Your task to perform on an android device: empty trash in google photos Image 0: 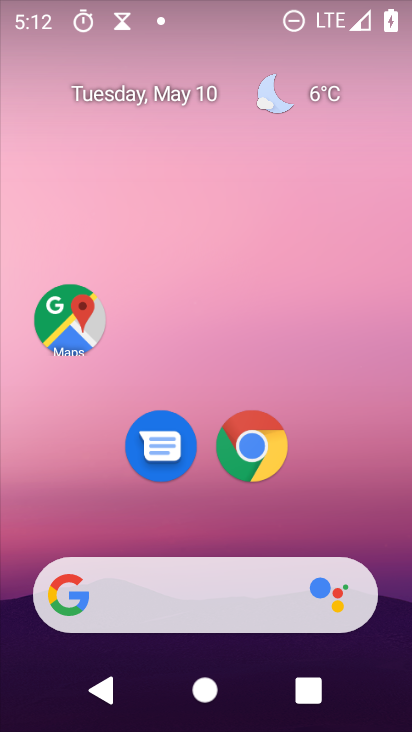
Step 0: drag from (314, 449) to (242, 2)
Your task to perform on an android device: empty trash in google photos Image 1: 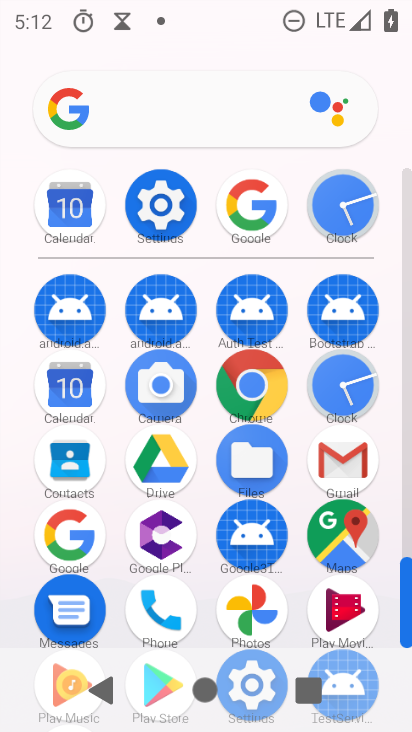
Step 1: click (249, 606)
Your task to perform on an android device: empty trash in google photos Image 2: 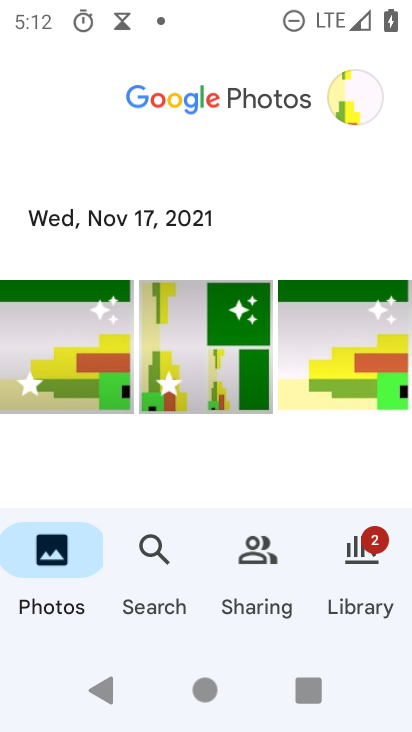
Step 2: click (361, 552)
Your task to perform on an android device: empty trash in google photos Image 3: 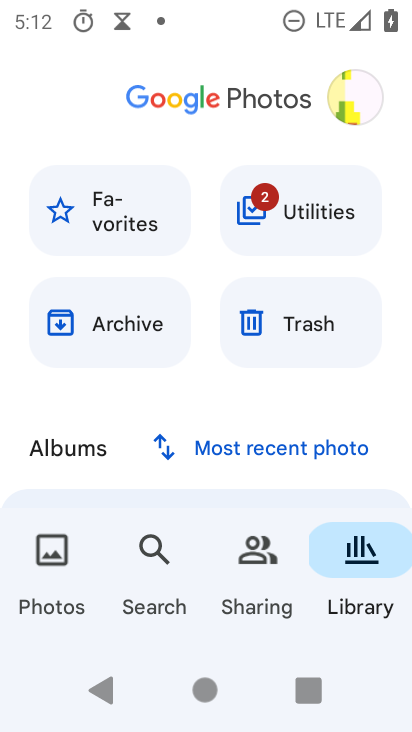
Step 3: click (283, 325)
Your task to perform on an android device: empty trash in google photos Image 4: 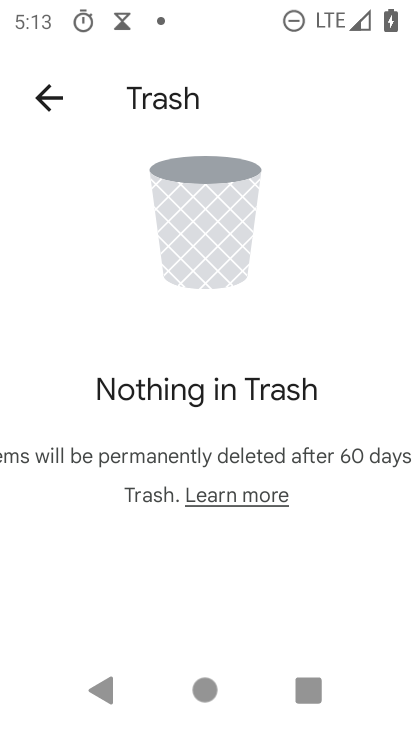
Step 4: task complete